Your task to perform on an android device: change your default location settings in chrome Image 0: 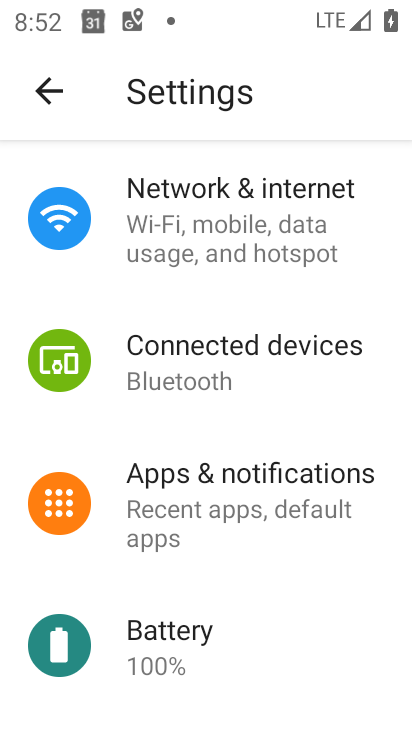
Step 0: press home button
Your task to perform on an android device: change your default location settings in chrome Image 1: 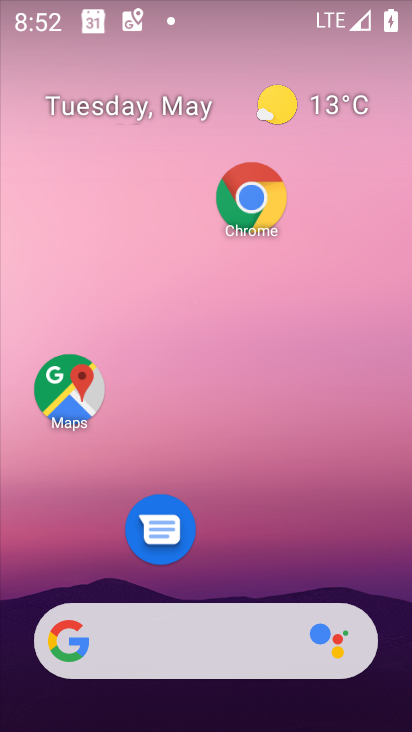
Step 1: click (273, 190)
Your task to perform on an android device: change your default location settings in chrome Image 2: 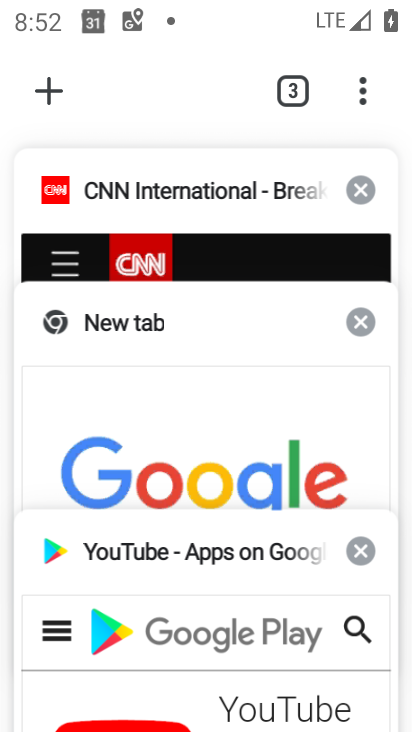
Step 2: click (364, 72)
Your task to perform on an android device: change your default location settings in chrome Image 3: 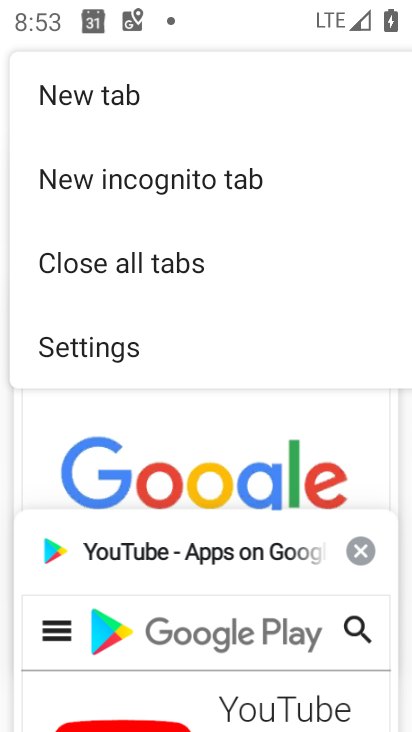
Step 3: click (180, 336)
Your task to perform on an android device: change your default location settings in chrome Image 4: 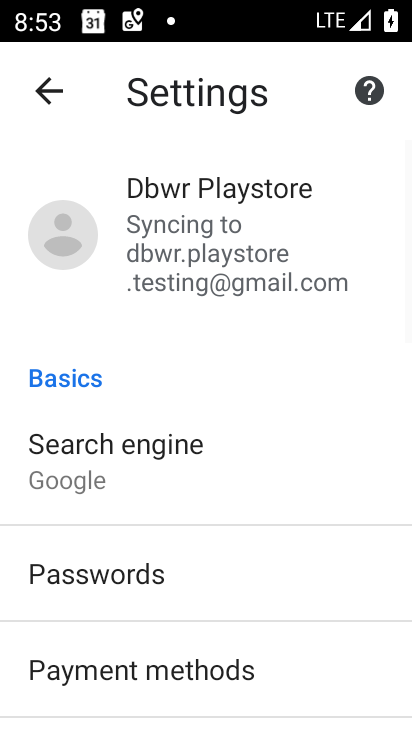
Step 4: drag from (158, 572) to (94, 228)
Your task to perform on an android device: change your default location settings in chrome Image 5: 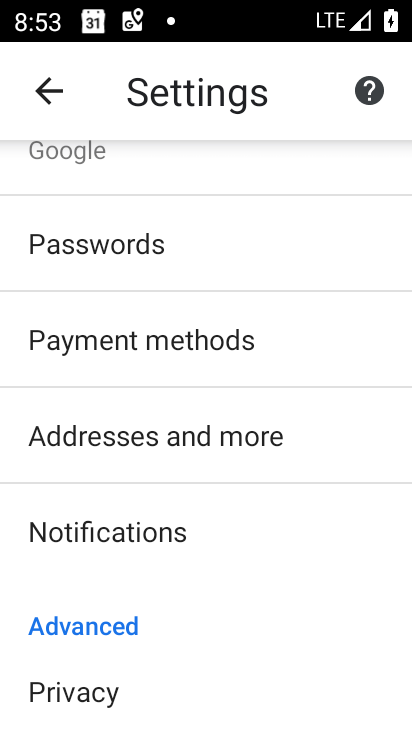
Step 5: drag from (50, 539) to (54, 339)
Your task to perform on an android device: change your default location settings in chrome Image 6: 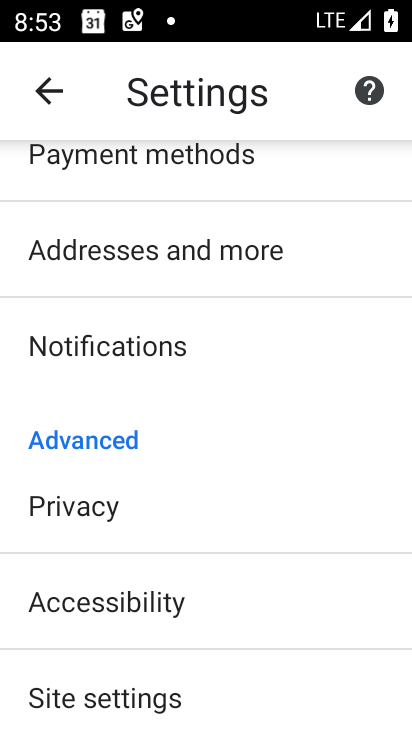
Step 6: click (218, 685)
Your task to perform on an android device: change your default location settings in chrome Image 7: 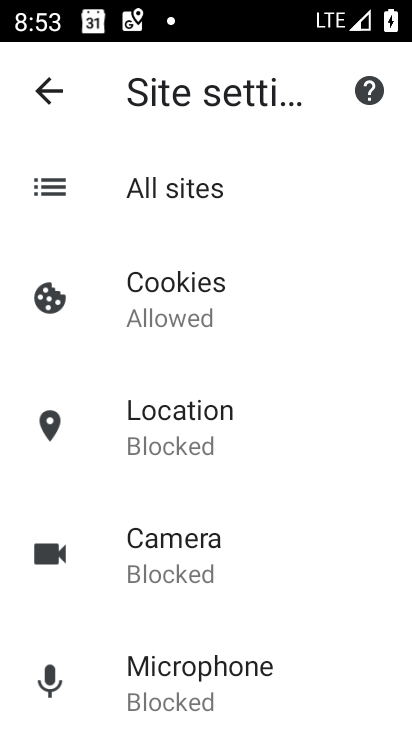
Step 7: click (27, 102)
Your task to perform on an android device: change your default location settings in chrome Image 8: 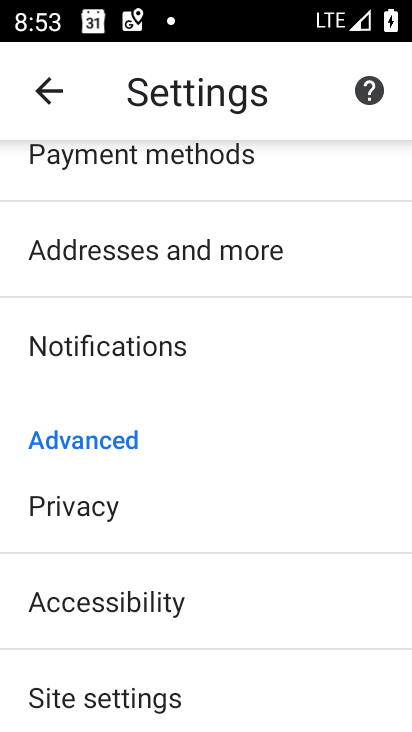
Step 8: drag from (55, 188) to (81, 443)
Your task to perform on an android device: change your default location settings in chrome Image 9: 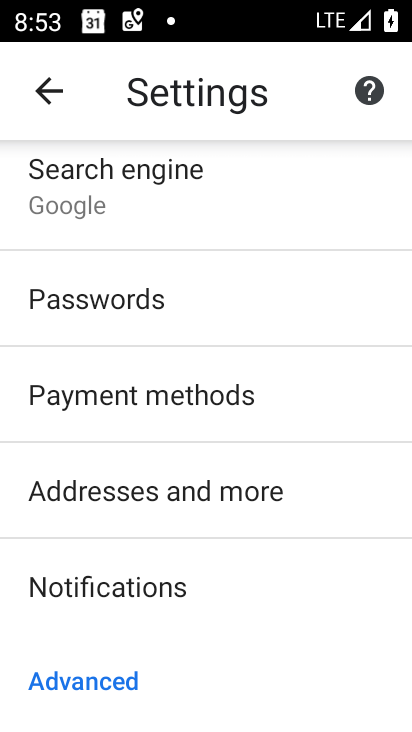
Step 9: drag from (126, 222) to (121, 326)
Your task to perform on an android device: change your default location settings in chrome Image 10: 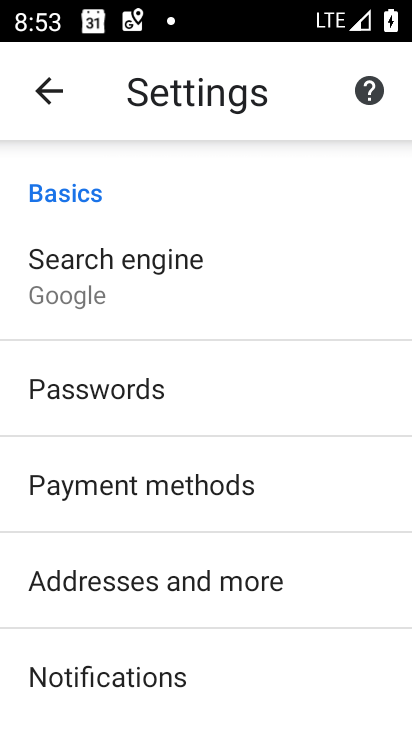
Step 10: drag from (152, 231) to (175, 487)
Your task to perform on an android device: change your default location settings in chrome Image 11: 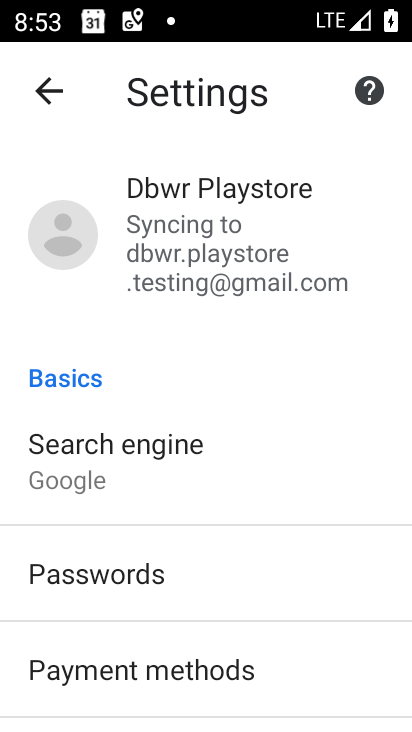
Step 11: drag from (178, 611) to (178, 433)
Your task to perform on an android device: change your default location settings in chrome Image 12: 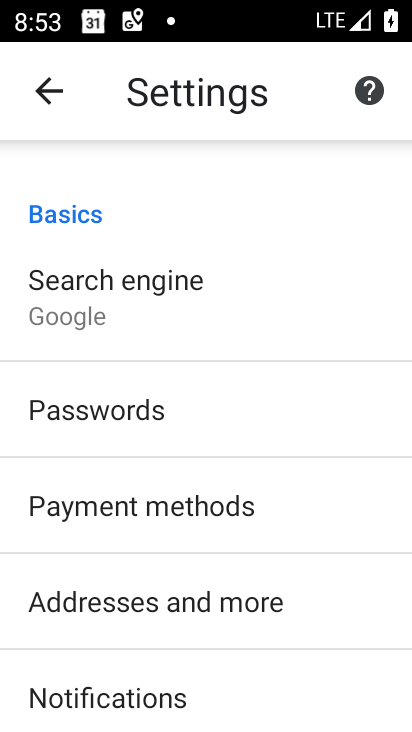
Step 12: click (174, 666)
Your task to perform on an android device: change your default location settings in chrome Image 13: 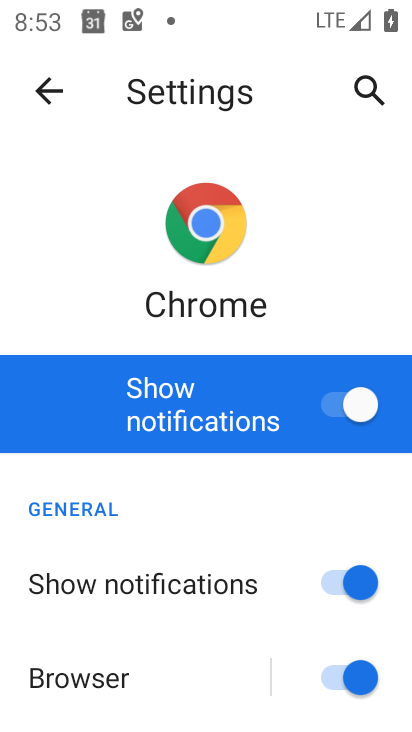
Step 13: task complete